Your task to perform on an android device: Go to Google maps Image 0: 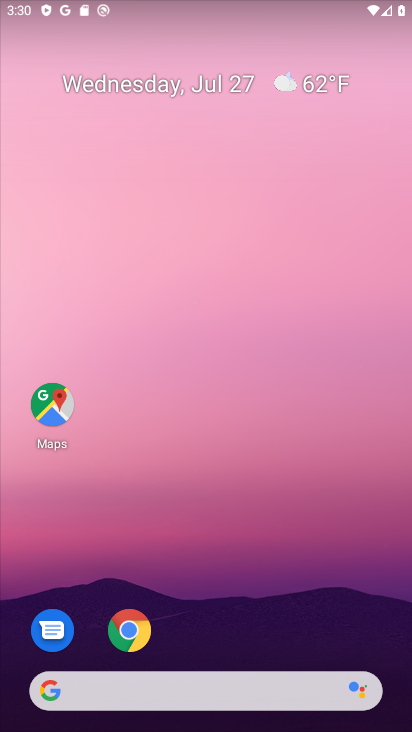
Step 0: click (46, 393)
Your task to perform on an android device: Go to Google maps Image 1: 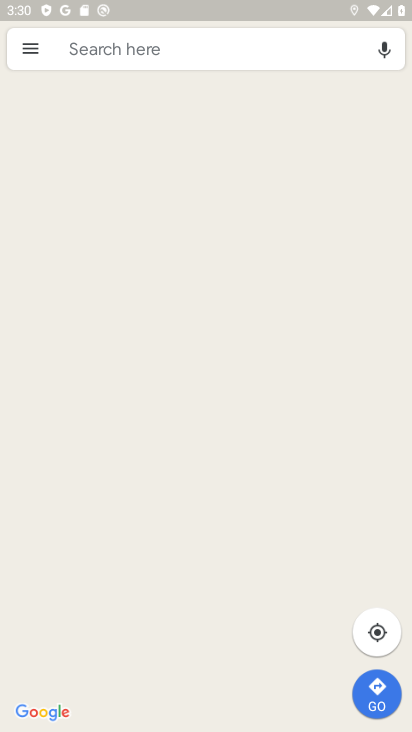
Step 1: task complete